Your task to perform on an android device: open app "VLC for Android" Image 0: 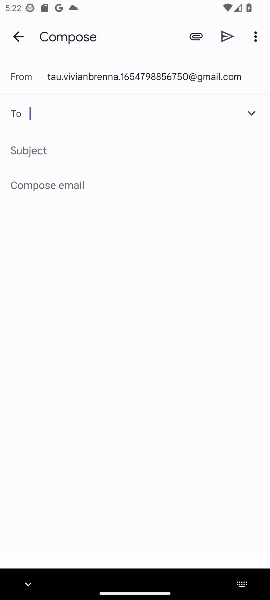
Step 0: press home button
Your task to perform on an android device: open app "VLC for Android" Image 1: 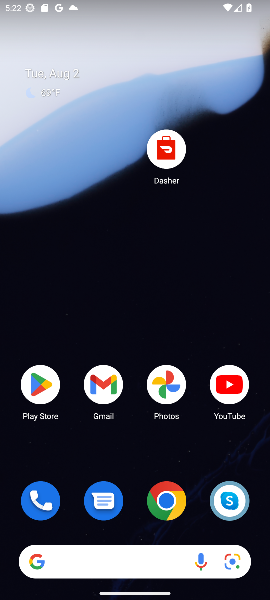
Step 1: click (47, 387)
Your task to perform on an android device: open app "VLC for Android" Image 2: 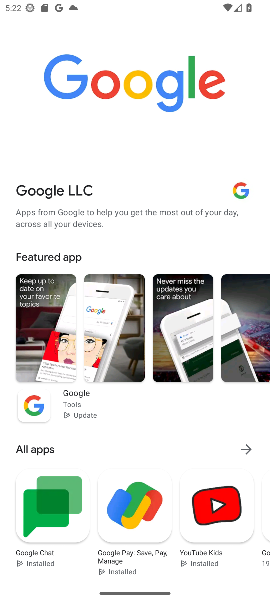
Step 2: drag from (129, 162) to (170, 402)
Your task to perform on an android device: open app "VLC for Android" Image 3: 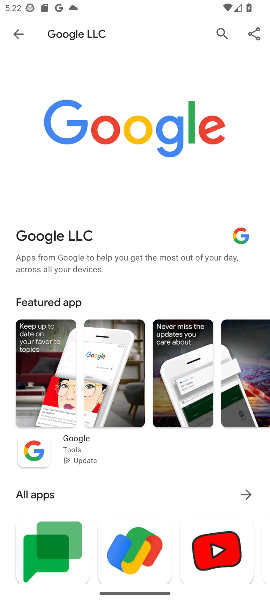
Step 3: click (219, 28)
Your task to perform on an android device: open app "VLC for Android" Image 4: 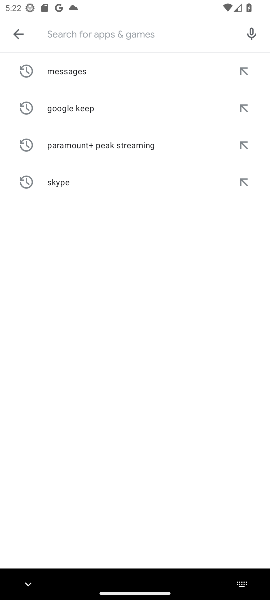
Step 4: type "VLC for Android"
Your task to perform on an android device: open app "VLC for Android" Image 5: 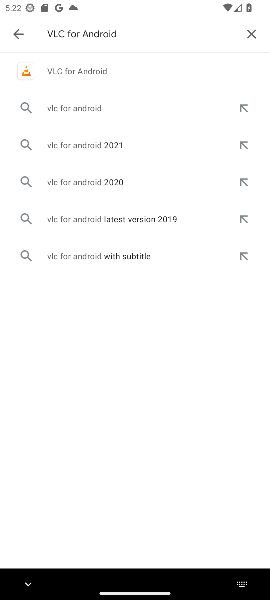
Step 5: click (56, 75)
Your task to perform on an android device: open app "VLC for Android" Image 6: 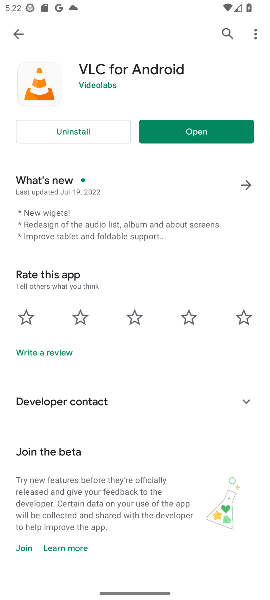
Step 6: click (217, 135)
Your task to perform on an android device: open app "VLC for Android" Image 7: 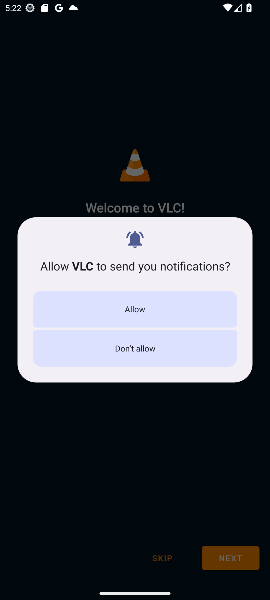
Step 7: task complete